Your task to perform on an android device: open a bookmark in the chrome app Image 0: 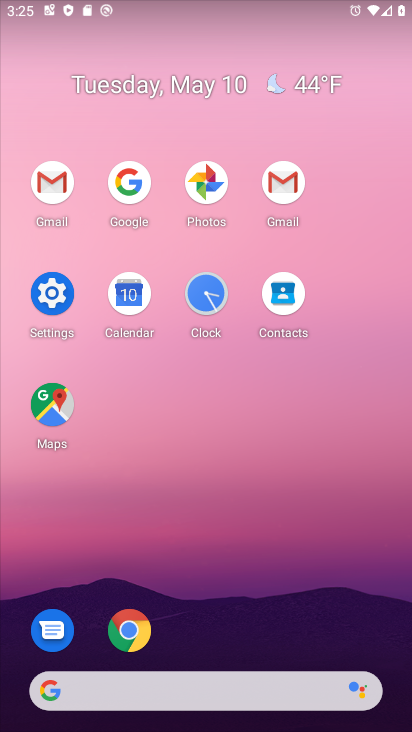
Step 0: click (131, 633)
Your task to perform on an android device: open a bookmark in the chrome app Image 1: 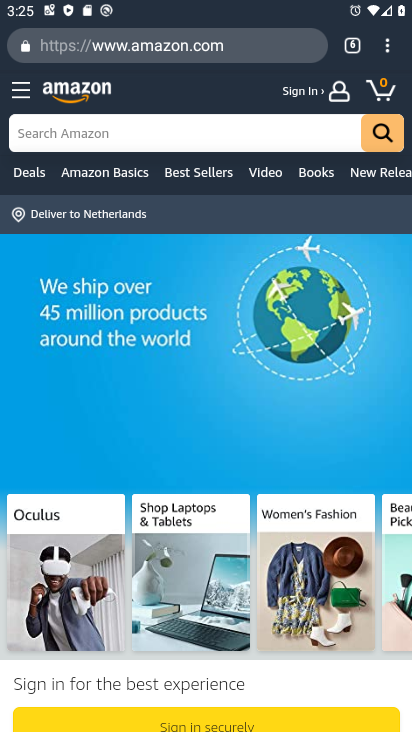
Step 1: click (382, 49)
Your task to perform on an android device: open a bookmark in the chrome app Image 2: 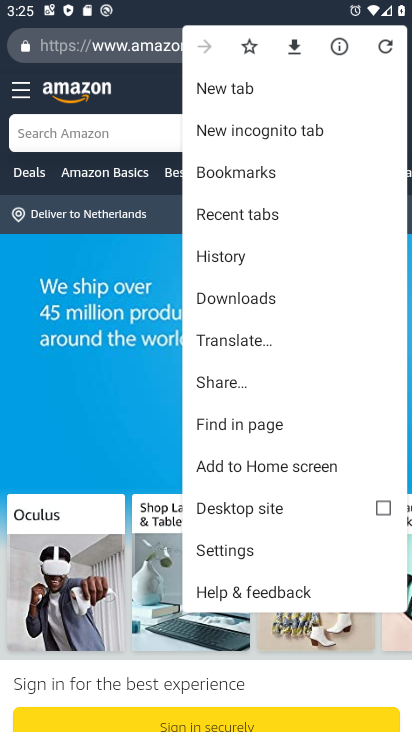
Step 2: click (272, 175)
Your task to perform on an android device: open a bookmark in the chrome app Image 3: 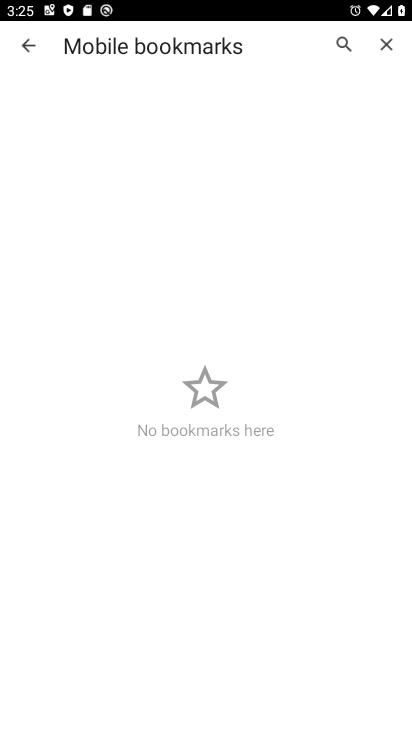
Step 3: task complete